Your task to perform on an android device: turn pop-ups on in chrome Image 0: 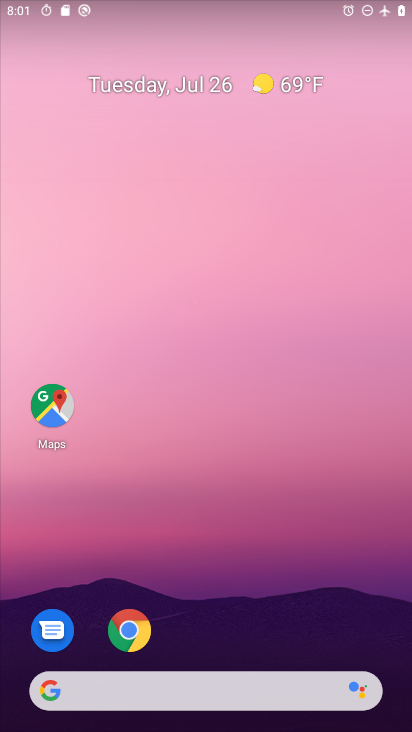
Step 0: drag from (273, 620) to (284, 165)
Your task to perform on an android device: turn pop-ups on in chrome Image 1: 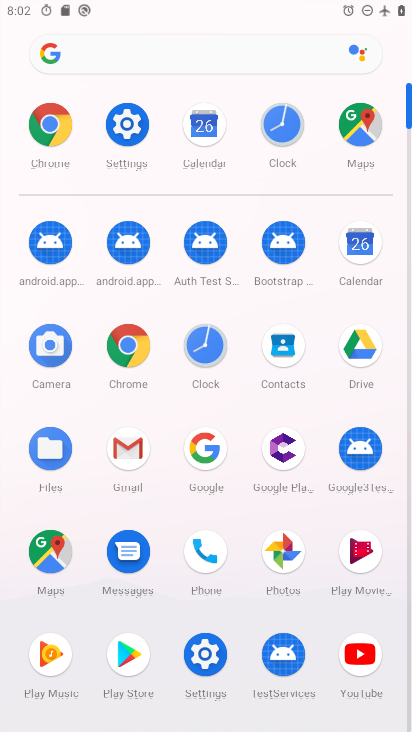
Step 1: click (137, 362)
Your task to perform on an android device: turn pop-ups on in chrome Image 2: 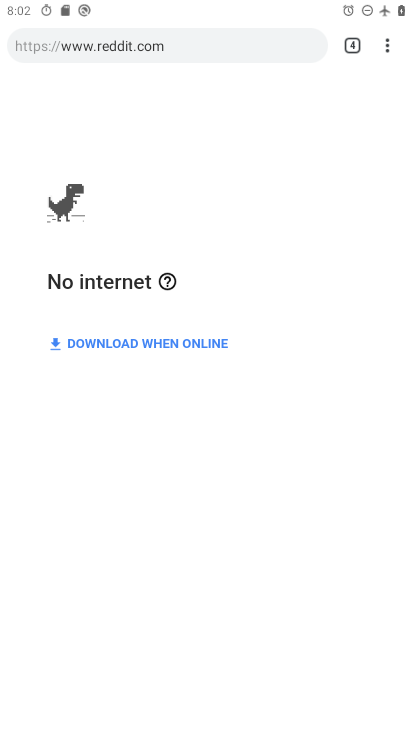
Step 2: click (384, 40)
Your task to perform on an android device: turn pop-ups on in chrome Image 3: 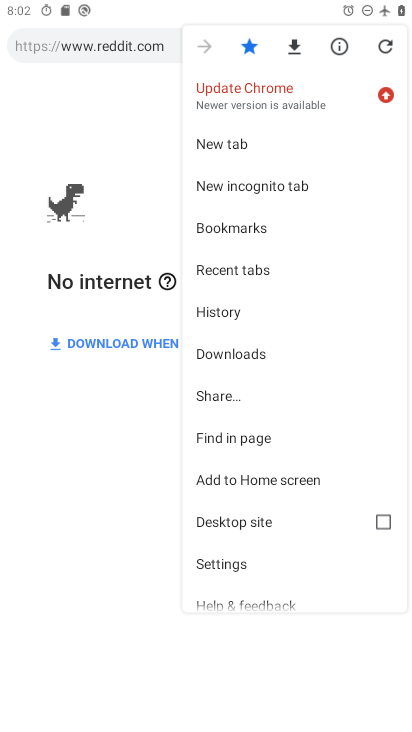
Step 3: click (253, 563)
Your task to perform on an android device: turn pop-ups on in chrome Image 4: 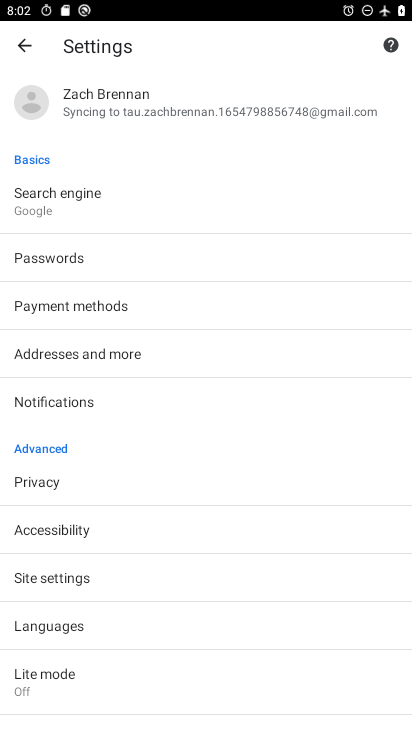
Step 4: drag from (169, 429) to (190, 295)
Your task to perform on an android device: turn pop-ups on in chrome Image 5: 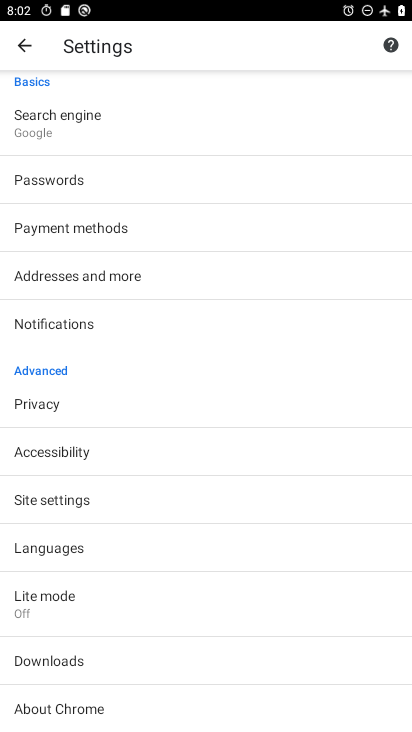
Step 5: click (132, 503)
Your task to perform on an android device: turn pop-ups on in chrome Image 6: 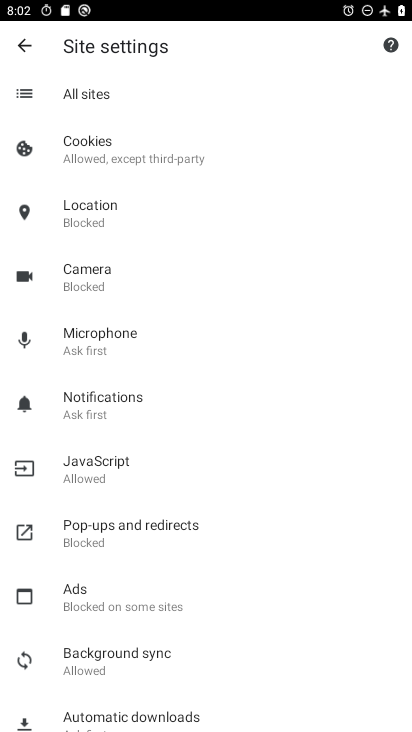
Step 6: click (230, 524)
Your task to perform on an android device: turn pop-ups on in chrome Image 7: 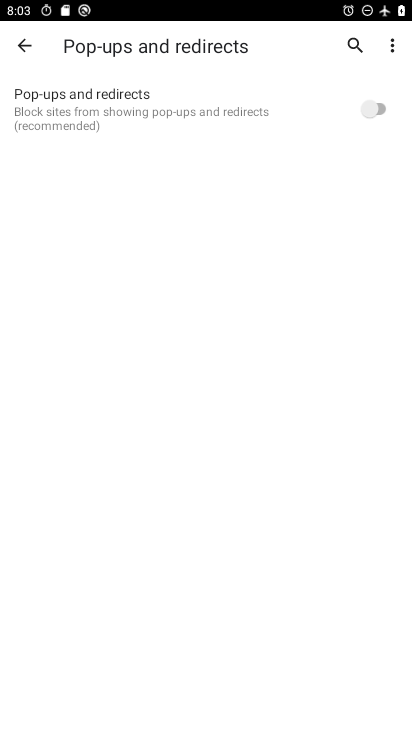
Step 7: click (370, 107)
Your task to perform on an android device: turn pop-ups on in chrome Image 8: 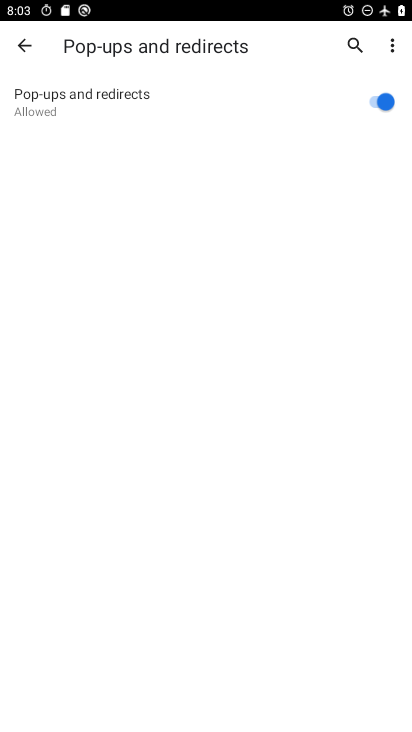
Step 8: task complete